Your task to perform on an android device: change text size in settings app Image 0: 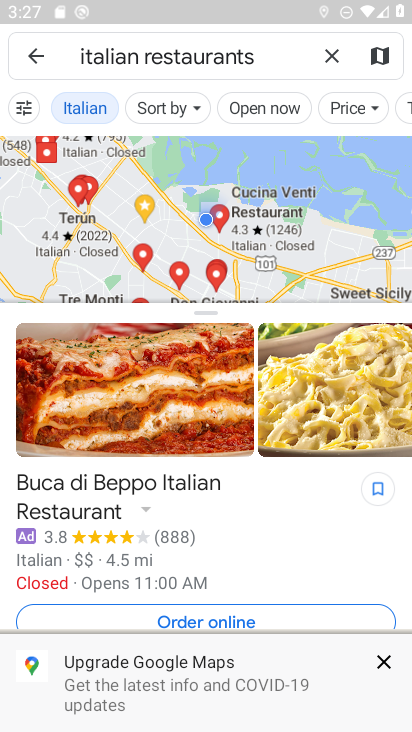
Step 0: press home button
Your task to perform on an android device: change text size in settings app Image 1: 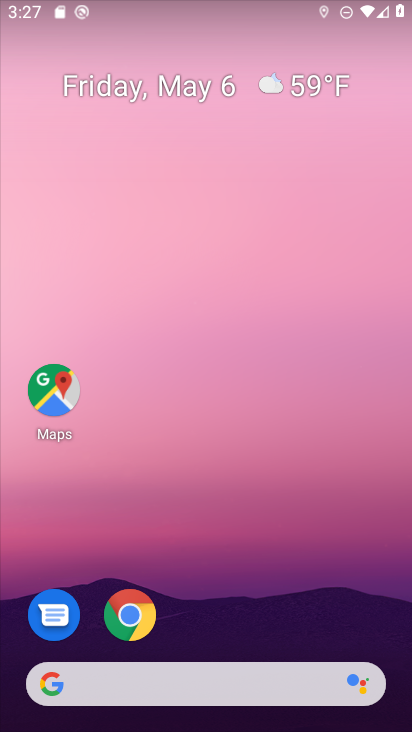
Step 1: drag from (290, 606) to (244, 154)
Your task to perform on an android device: change text size in settings app Image 2: 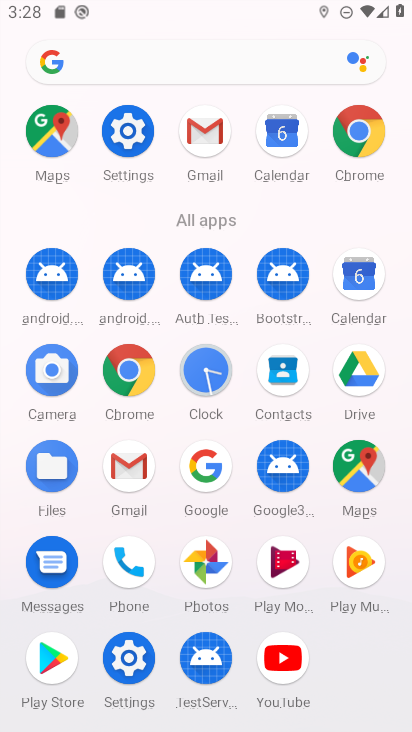
Step 2: click (135, 656)
Your task to perform on an android device: change text size in settings app Image 3: 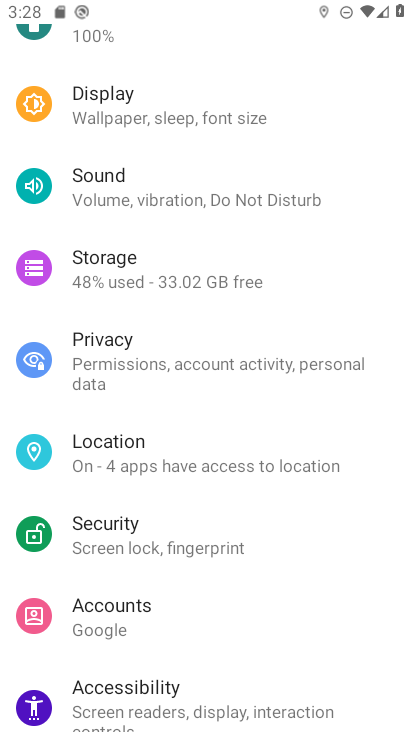
Step 3: click (120, 114)
Your task to perform on an android device: change text size in settings app Image 4: 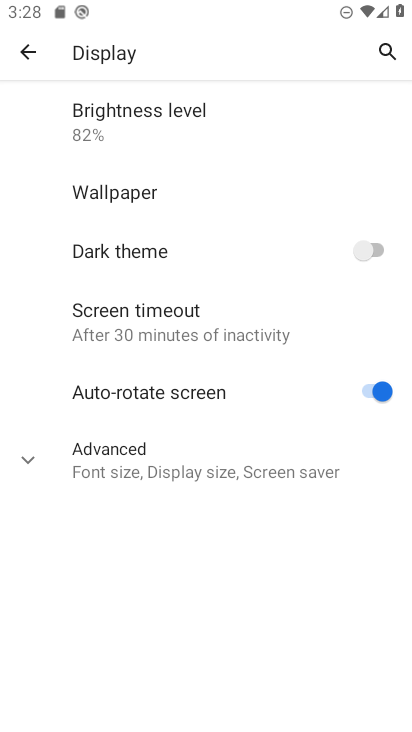
Step 4: click (179, 467)
Your task to perform on an android device: change text size in settings app Image 5: 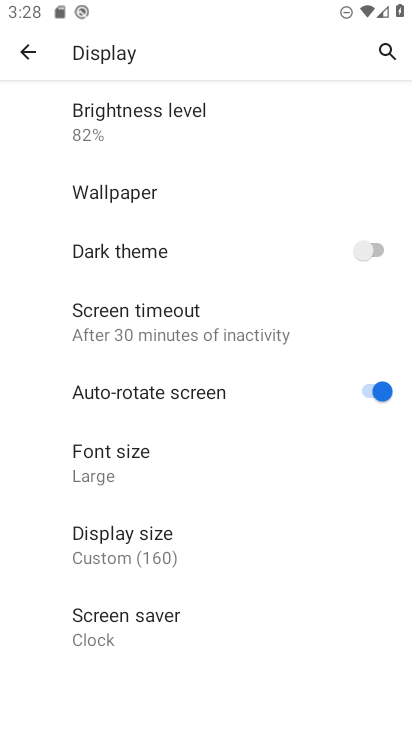
Step 5: click (118, 454)
Your task to perform on an android device: change text size in settings app Image 6: 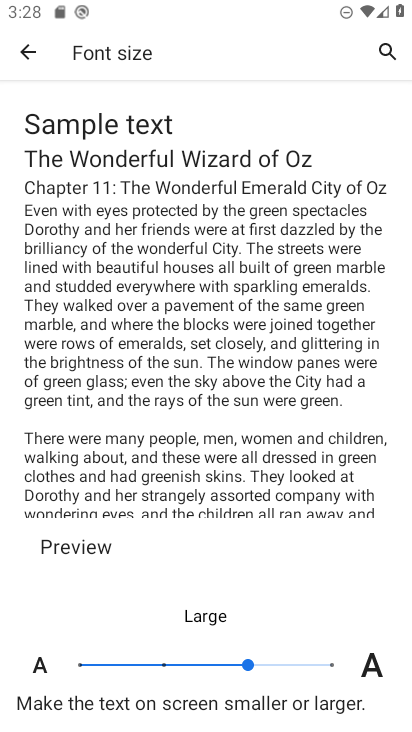
Step 6: drag from (323, 579) to (352, 378)
Your task to perform on an android device: change text size in settings app Image 7: 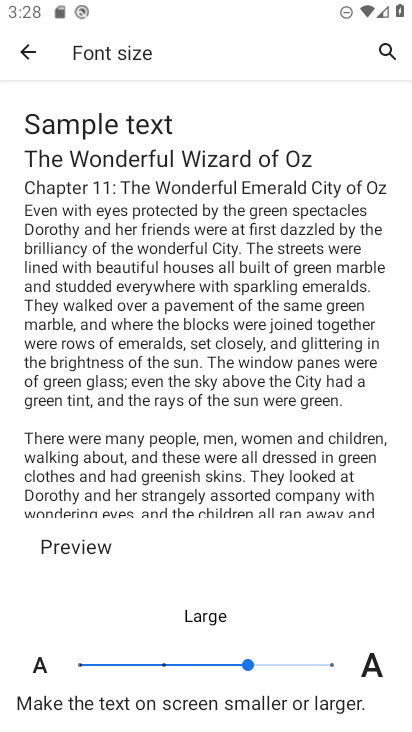
Step 7: click (328, 433)
Your task to perform on an android device: change text size in settings app Image 8: 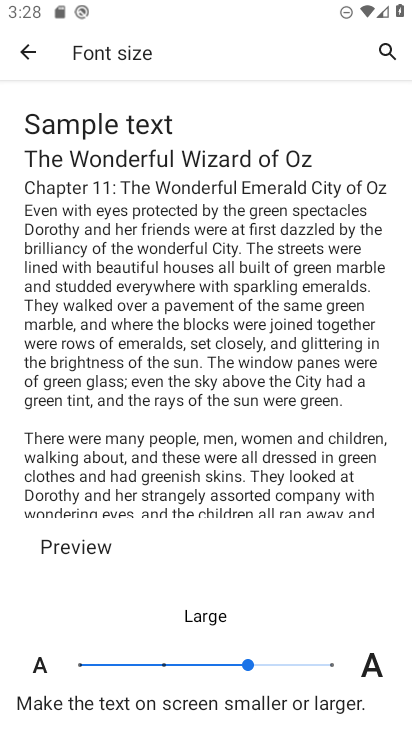
Step 8: click (162, 663)
Your task to perform on an android device: change text size in settings app Image 9: 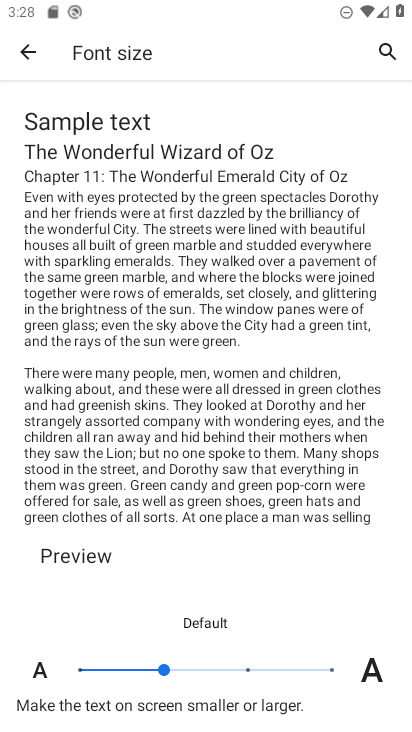
Step 9: task complete